Your task to perform on an android device: Open the calendar app, open the side menu, and click the "Day" option Image 0: 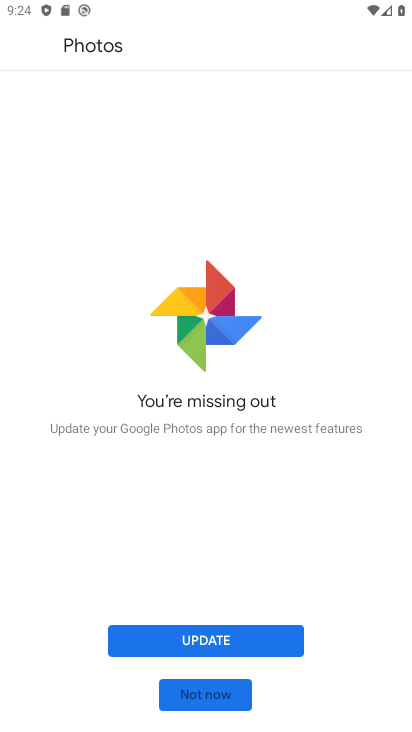
Step 0: press back button
Your task to perform on an android device: Open the calendar app, open the side menu, and click the "Day" option Image 1: 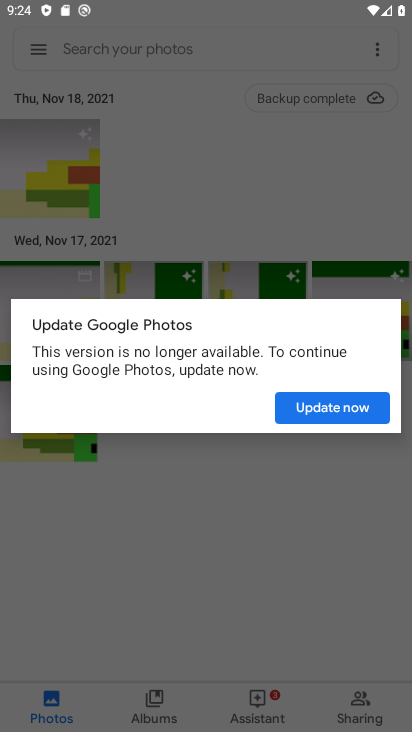
Step 1: press back button
Your task to perform on an android device: Open the calendar app, open the side menu, and click the "Day" option Image 2: 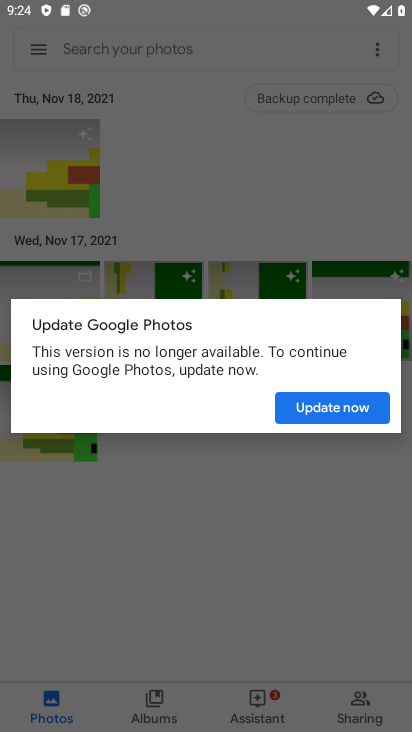
Step 2: press back button
Your task to perform on an android device: Open the calendar app, open the side menu, and click the "Day" option Image 3: 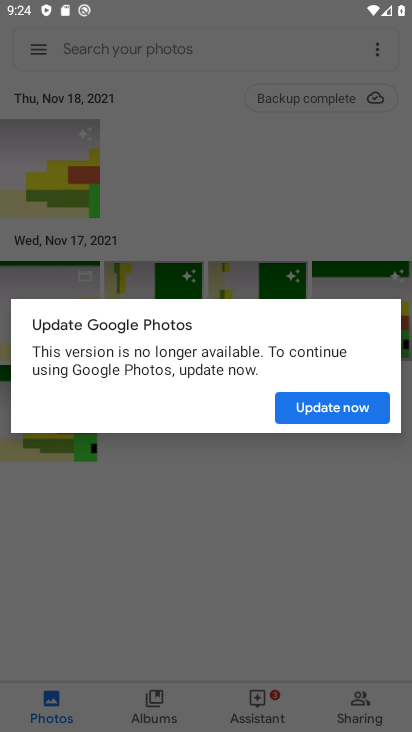
Step 3: press home button
Your task to perform on an android device: Open the calendar app, open the side menu, and click the "Day" option Image 4: 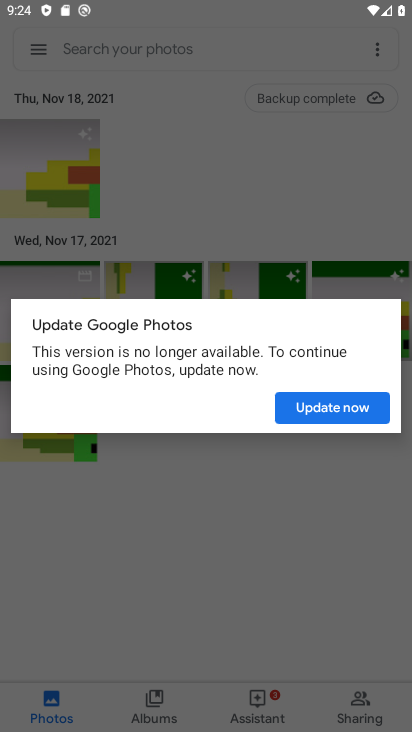
Step 4: press home button
Your task to perform on an android device: Open the calendar app, open the side menu, and click the "Day" option Image 5: 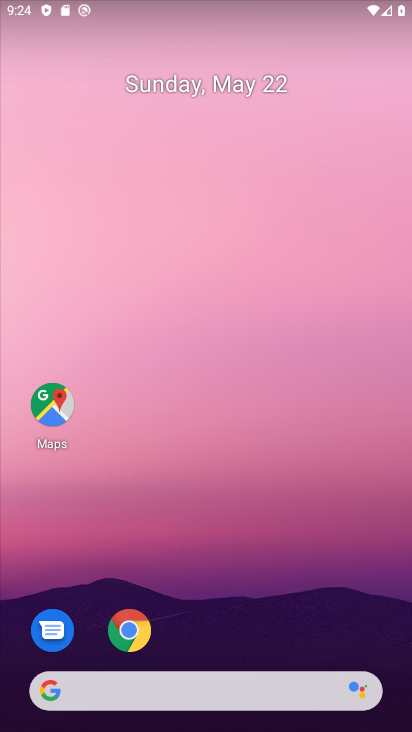
Step 5: drag from (397, 602) to (364, 154)
Your task to perform on an android device: Open the calendar app, open the side menu, and click the "Day" option Image 6: 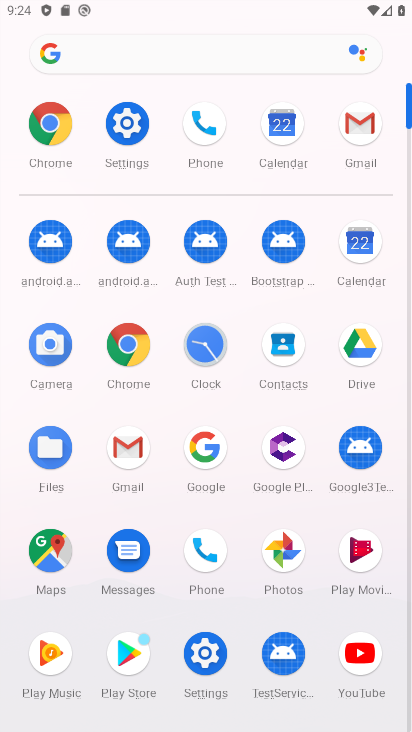
Step 6: click (358, 246)
Your task to perform on an android device: Open the calendar app, open the side menu, and click the "Day" option Image 7: 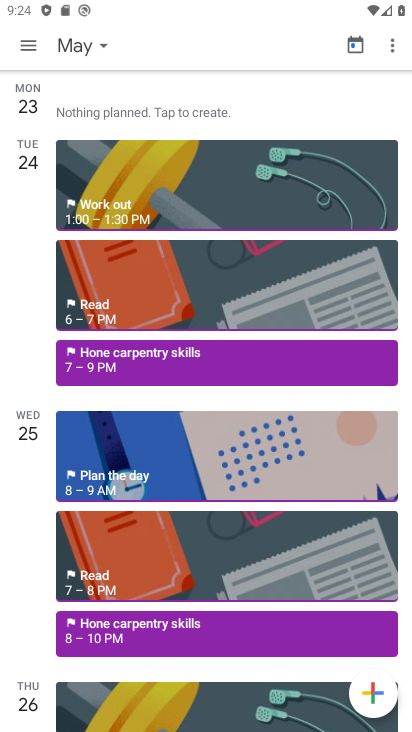
Step 7: click (28, 41)
Your task to perform on an android device: Open the calendar app, open the side menu, and click the "Day" option Image 8: 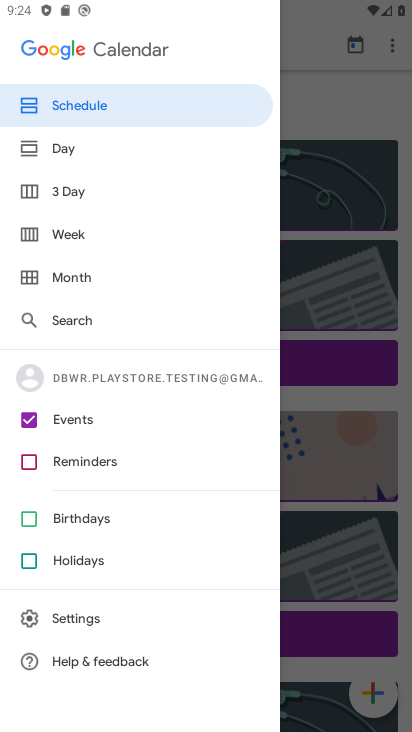
Step 8: click (52, 144)
Your task to perform on an android device: Open the calendar app, open the side menu, and click the "Day" option Image 9: 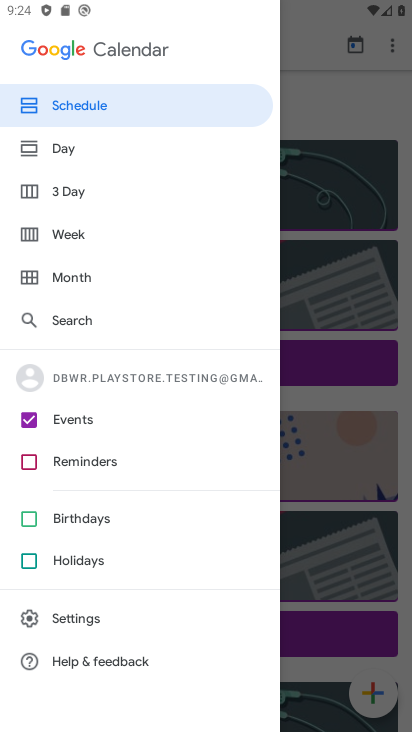
Step 9: click (53, 146)
Your task to perform on an android device: Open the calendar app, open the side menu, and click the "Day" option Image 10: 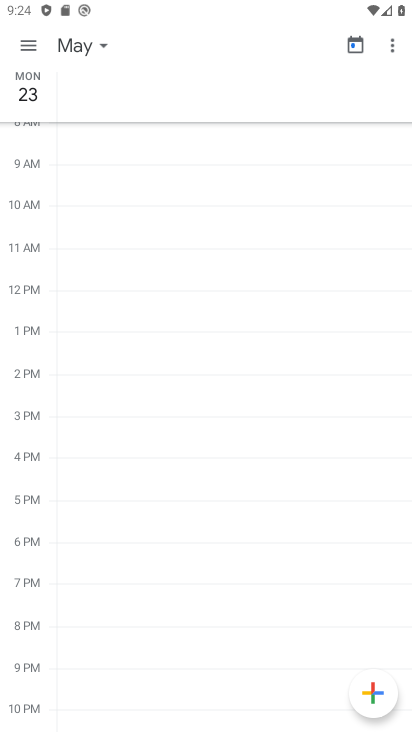
Step 10: task complete